Your task to perform on an android device: Open ESPN.com Image 0: 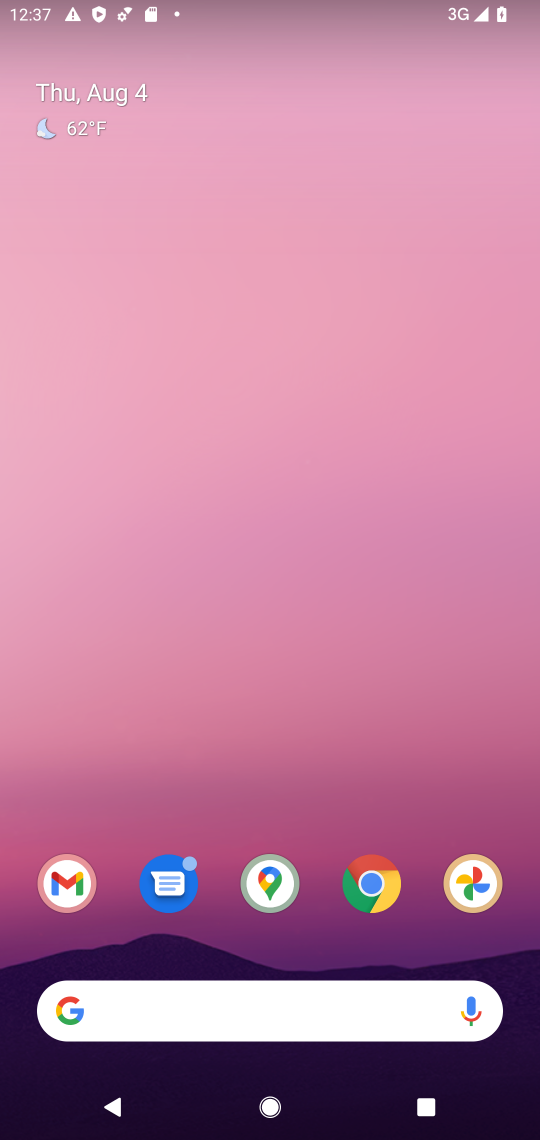
Step 0: drag from (276, 827) to (340, 228)
Your task to perform on an android device: Open ESPN.com Image 1: 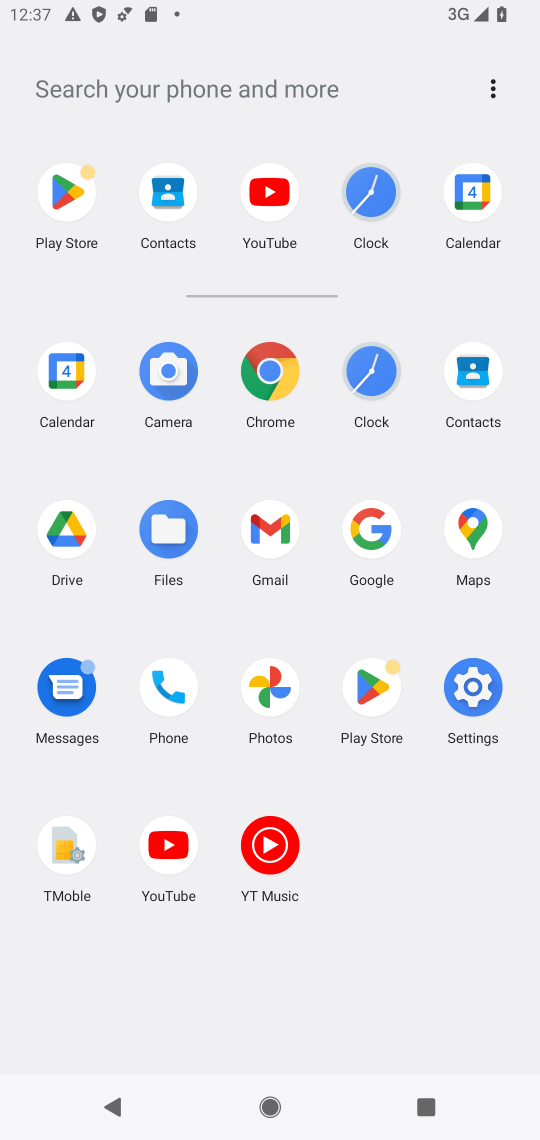
Step 1: click (263, 101)
Your task to perform on an android device: Open ESPN.com Image 2: 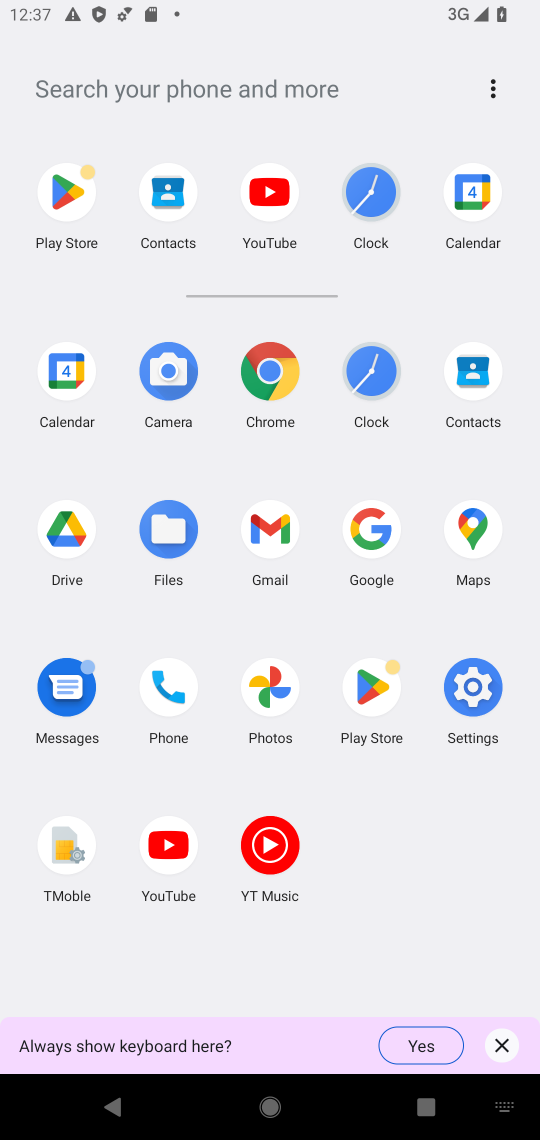
Step 2: type "ESPN.com"
Your task to perform on an android device: Open ESPN.com Image 3: 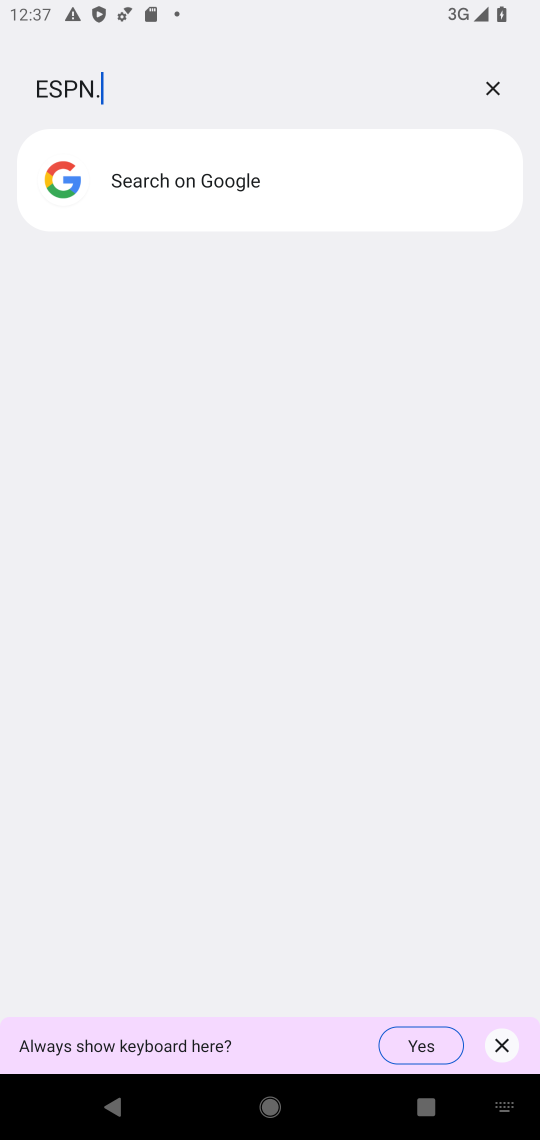
Step 3: type ""
Your task to perform on an android device: Open ESPN.com Image 4: 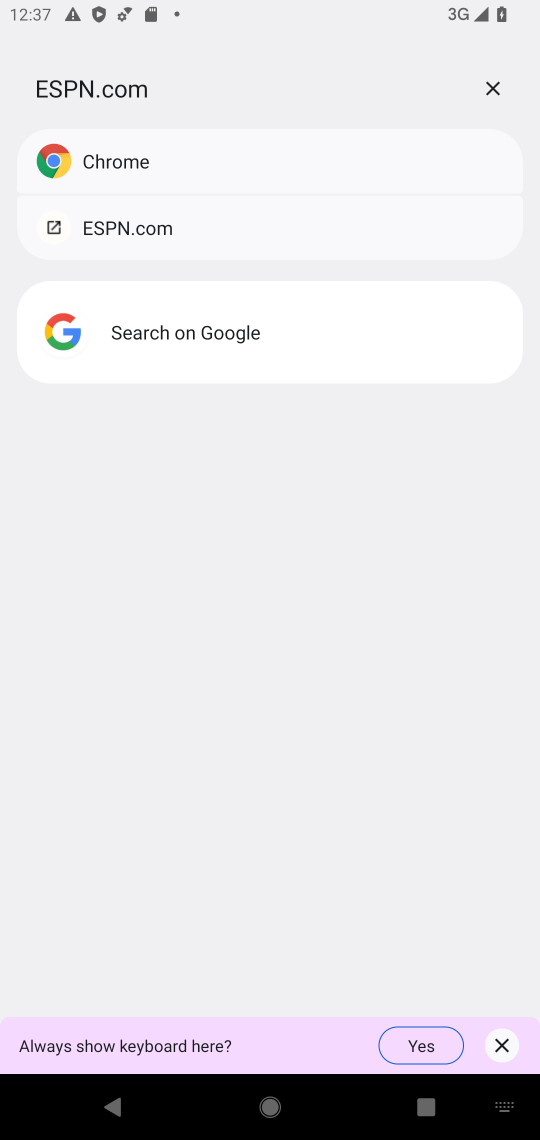
Step 4: click (162, 218)
Your task to perform on an android device: Open ESPN.com Image 5: 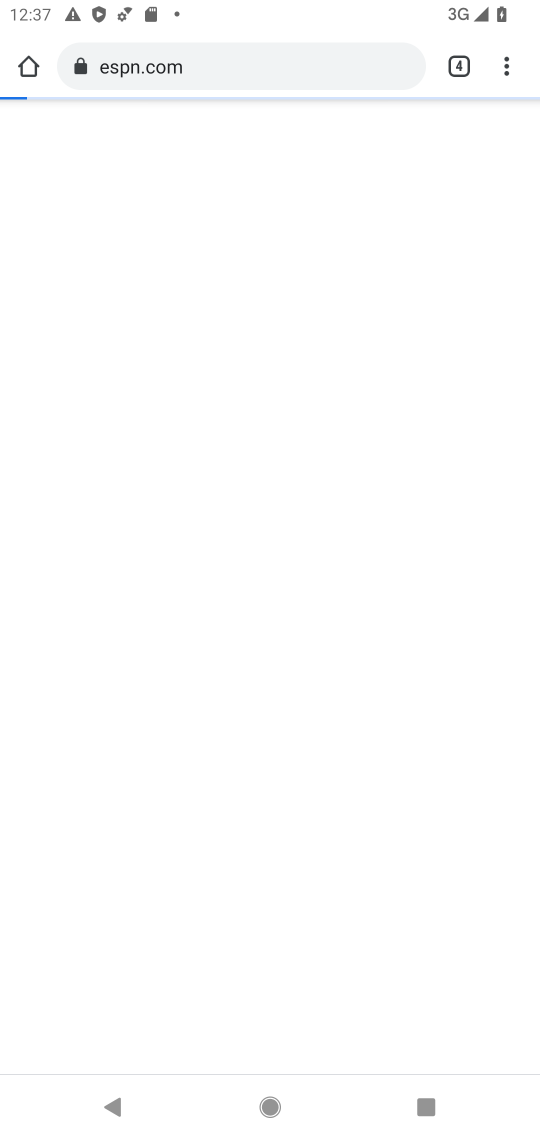
Step 5: task complete